Your task to perform on an android device: search for starred emails in the gmail app Image 0: 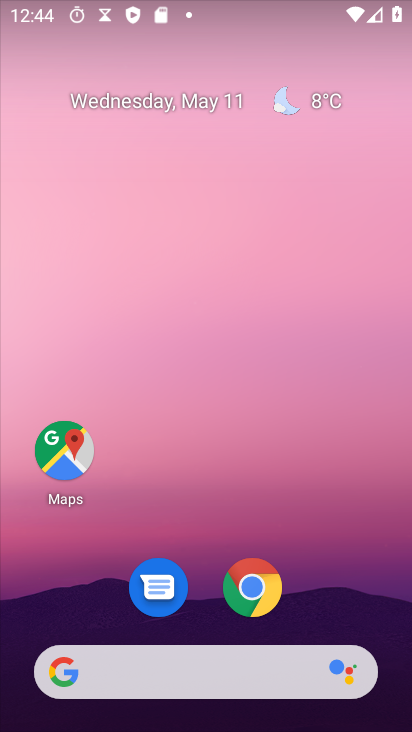
Step 0: drag from (342, 626) to (133, 9)
Your task to perform on an android device: search for starred emails in the gmail app Image 1: 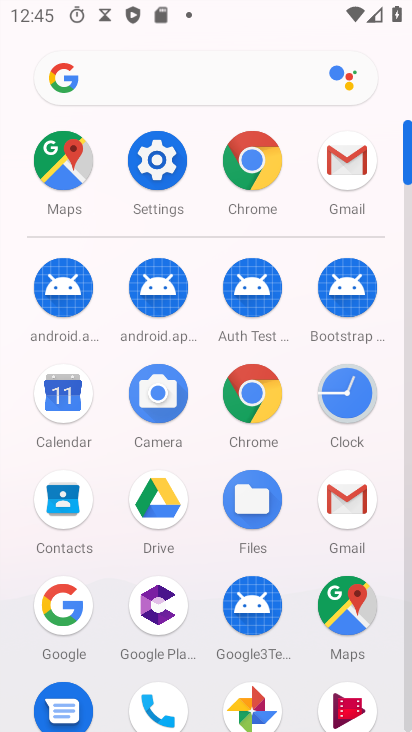
Step 1: click (358, 495)
Your task to perform on an android device: search for starred emails in the gmail app Image 2: 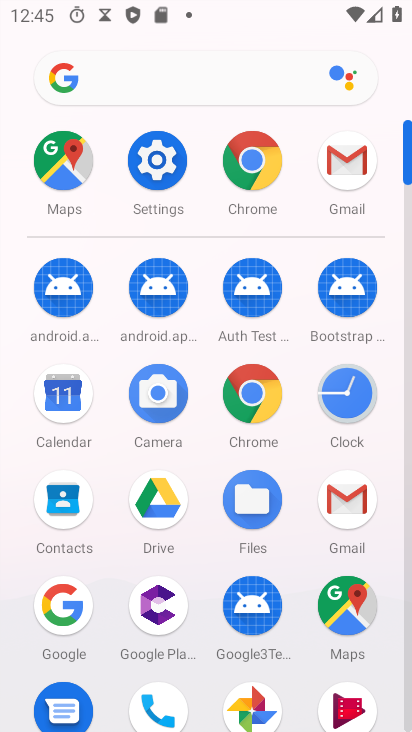
Step 2: click (354, 495)
Your task to perform on an android device: search for starred emails in the gmail app Image 3: 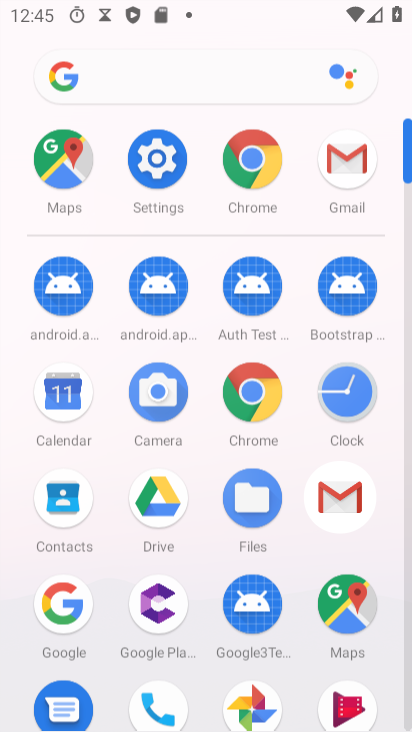
Step 3: click (354, 495)
Your task to perform on an android device: search for starred emails in the gmail app Image 4: 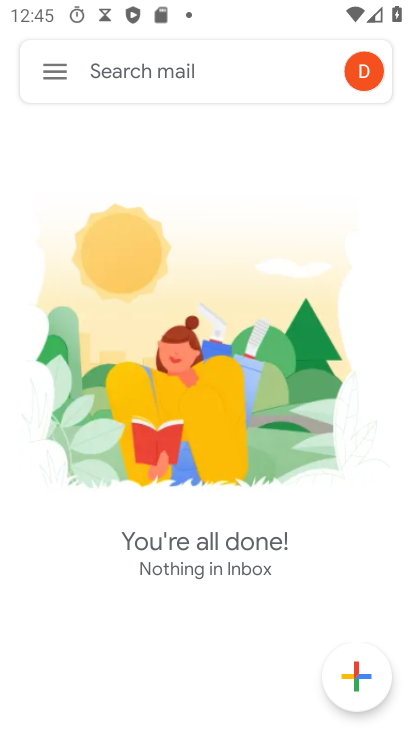
Step 4: click (96, 71)
Your task to perform on an android device: search for starred emails in the gmail app Image 5: 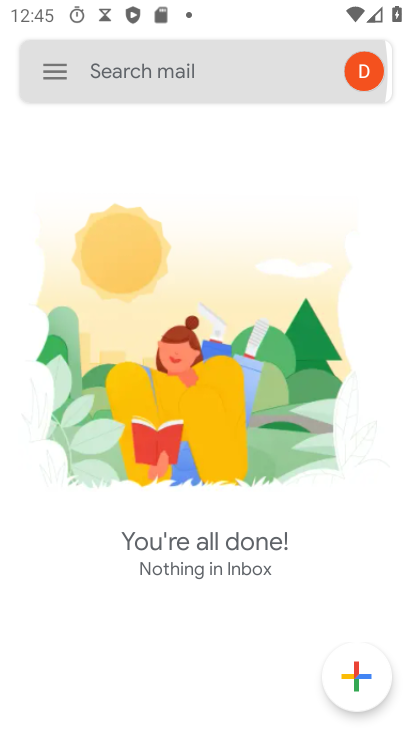
Step 5: click (94, 69)
Your task to perform on an android device: search for starred emails in the gmail app Image 6: 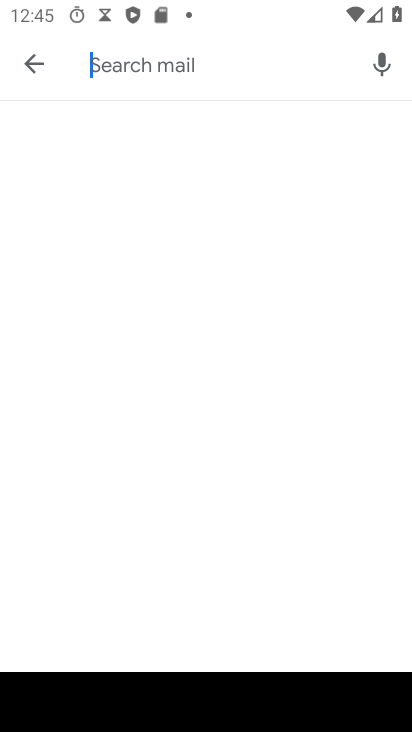
Step 6: click (38, 56)
Your task to perform on an android device: search for starred emails in the gmail app Image 7: 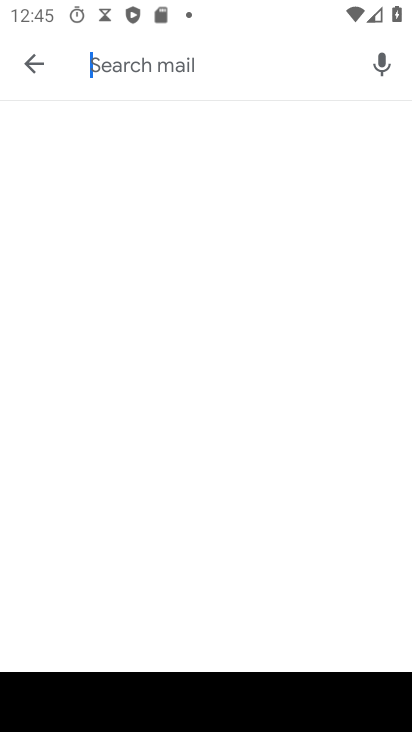
Step 7: click (35, 58)
Your task to perform on an android device: search for starred emails in the gmail app Image 8: 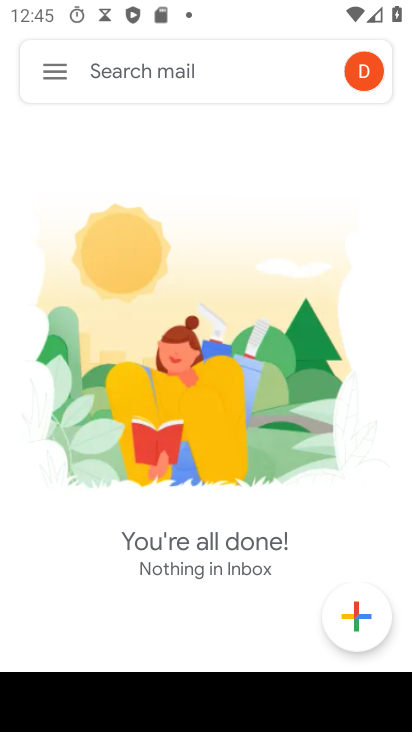
Step 8: click (32, 61)
Your task to perform on an android device: search for starred emails in the gmail app Image 9: 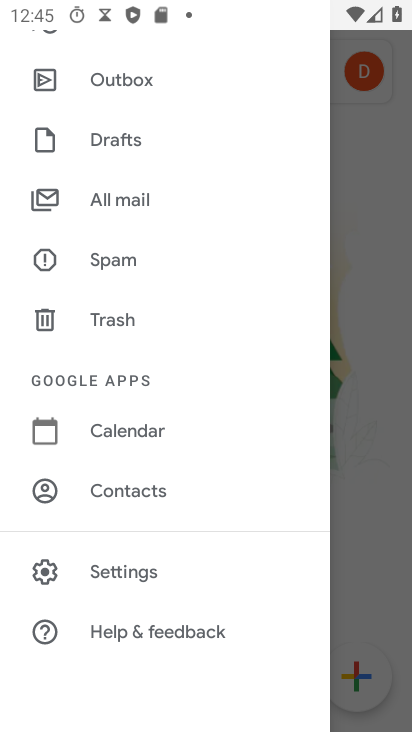
Step 9: drag from (130, 228) to (238, 487)
Your task to perform on an android device: search for starred emails in the gmail app Image 10: 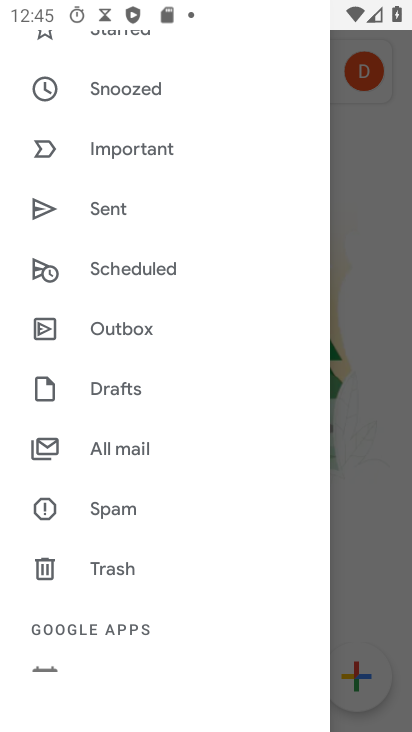
Step 10: drag from (136, 185) to (207, 516)
Your task to perform on an android device: search for starred emails in the gmail app Image 11: 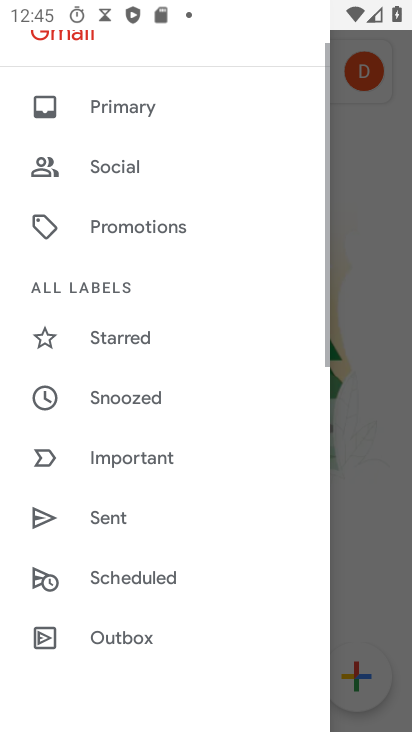
Step 11: drag from (174, 232) to (215, 452)
Your task to perform on an android device: search for starred emails in the gmail app Image 12: 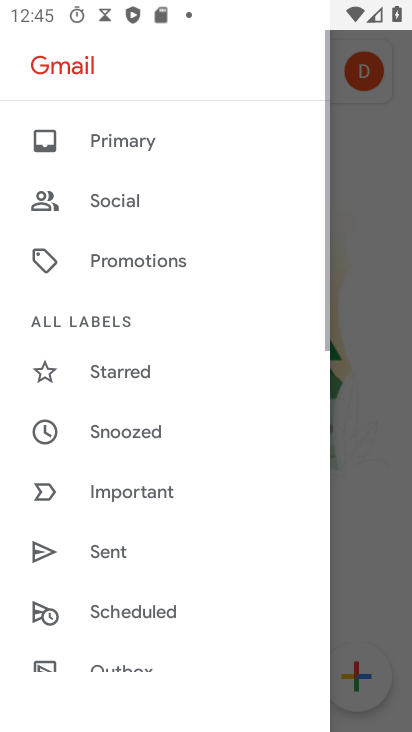
Step 12: drag from (88, 177) to (128, 524)
Your task to perform on an android device: search for starred emails in the gmail app Image 13: 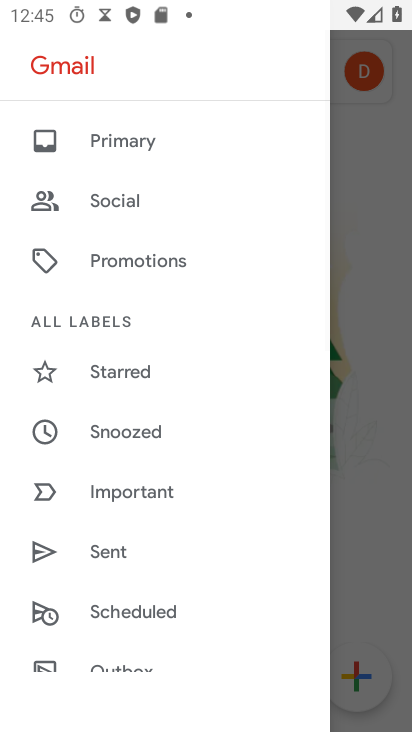
Step 13: click (124, 362)
Your task to perform on an android device: search for starred emails in the gmail app Image 14: 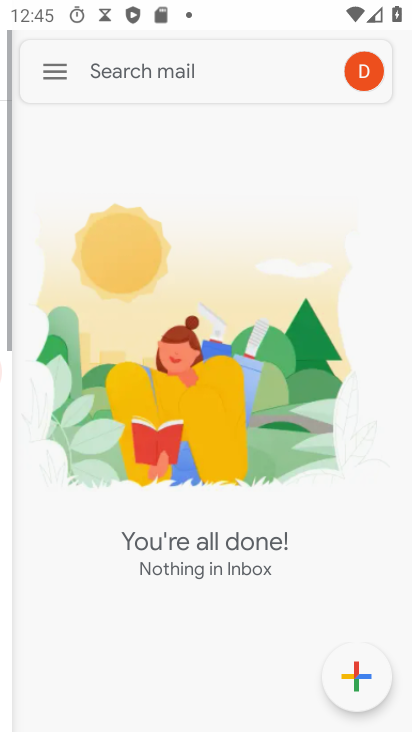
Step 14: click (124, 362)
Your task to perform on an android device: search for starred emails in the gmail app Image 15: 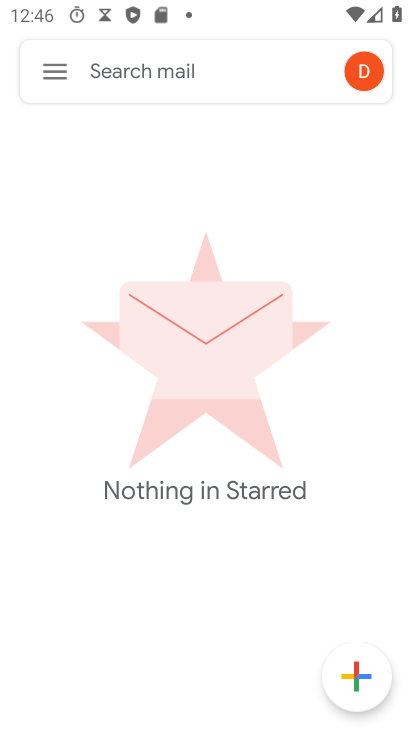
Step 15: task complete